Your task to perform on an android device: open app "Microsoft Outlook" Image 0: 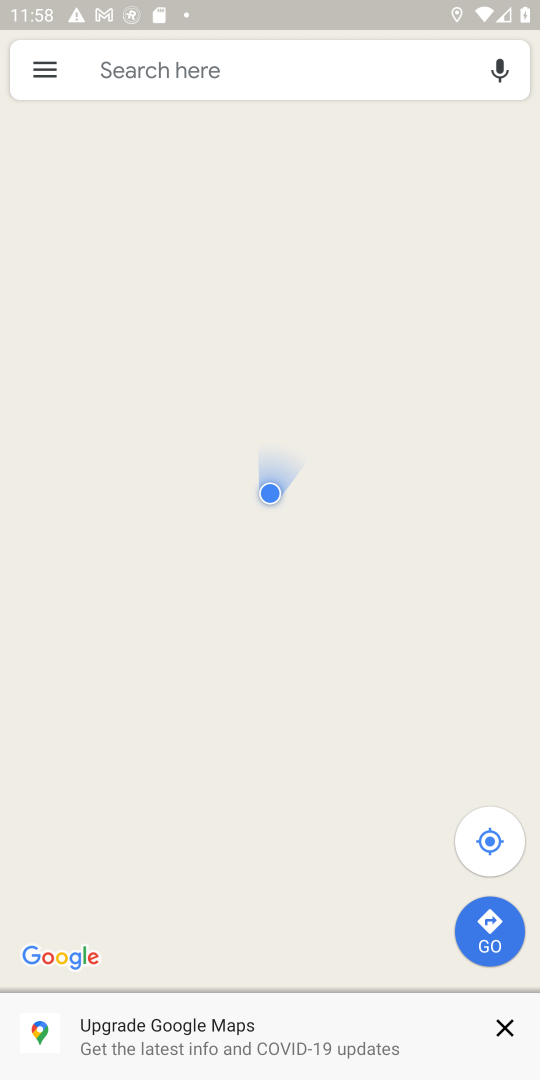
Step 0: press home button
Your task to perform on an android device: open app "Microsoft Outlook" Image 1: 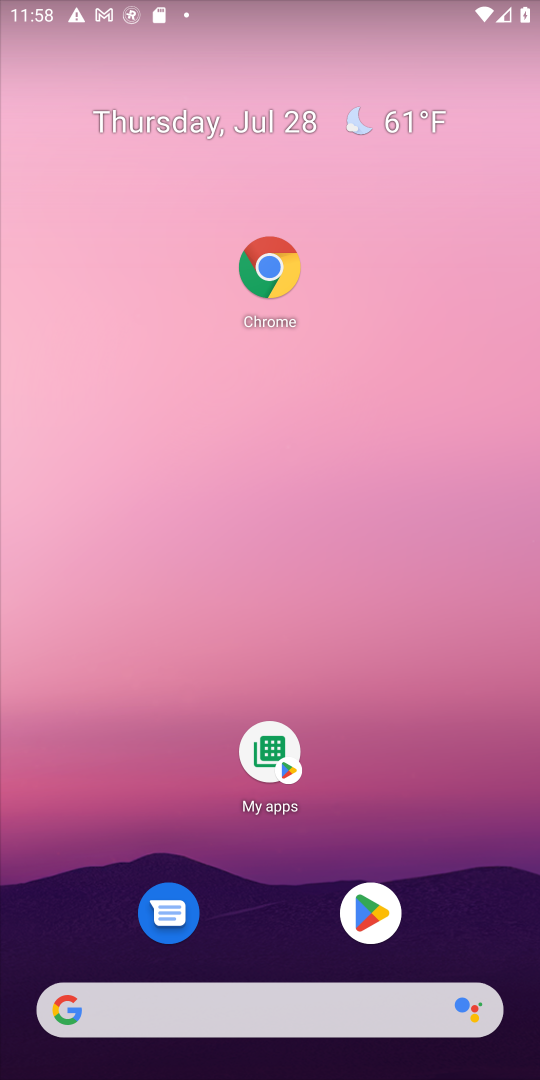
Step 1: click (378, 903)
Your task to perform on an android device: open app "Microsoft Outlook" Image 2: 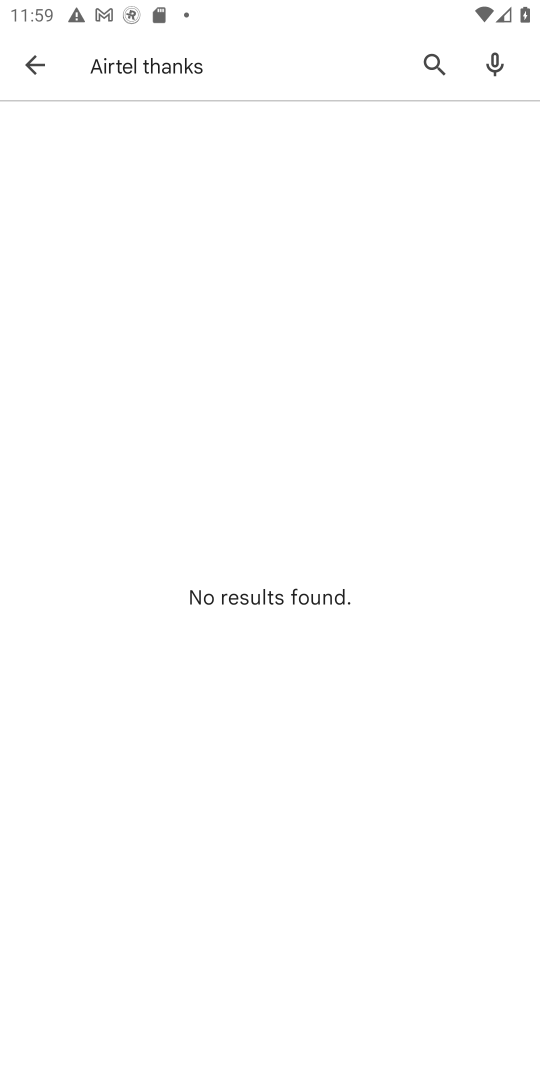
Step 2: click (434, 67)
Your task to perform on an android device: open app "Microsoft Outlook" Image 3: 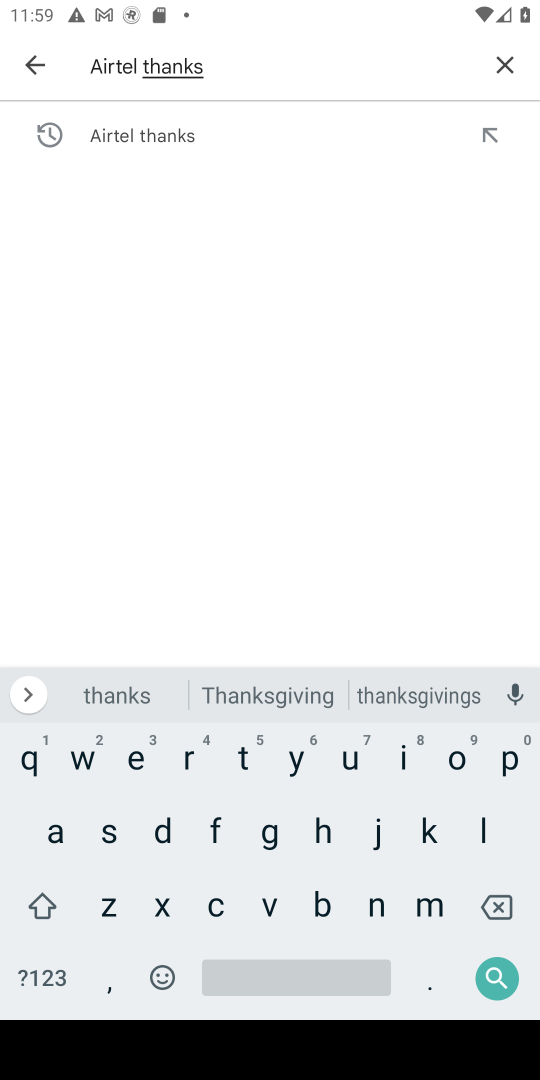
Step 3: click (503, 67)
Your task to perform on an android device: open app "Microsoft Outlook" Image 4: 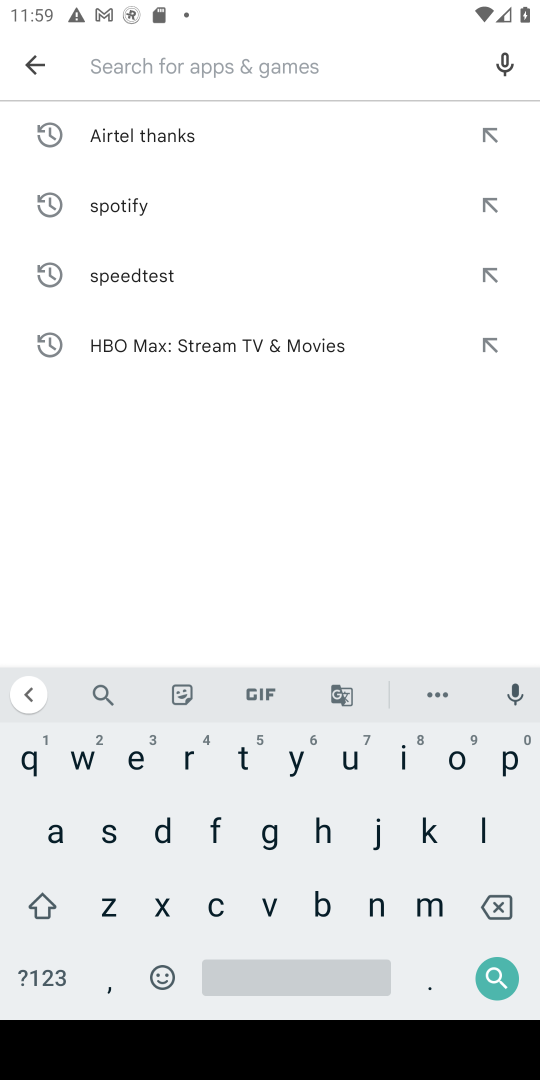
Step 4: click (458, 766)
Your task to perform on an android device: open app "Microsoft Outlook" Image 5: 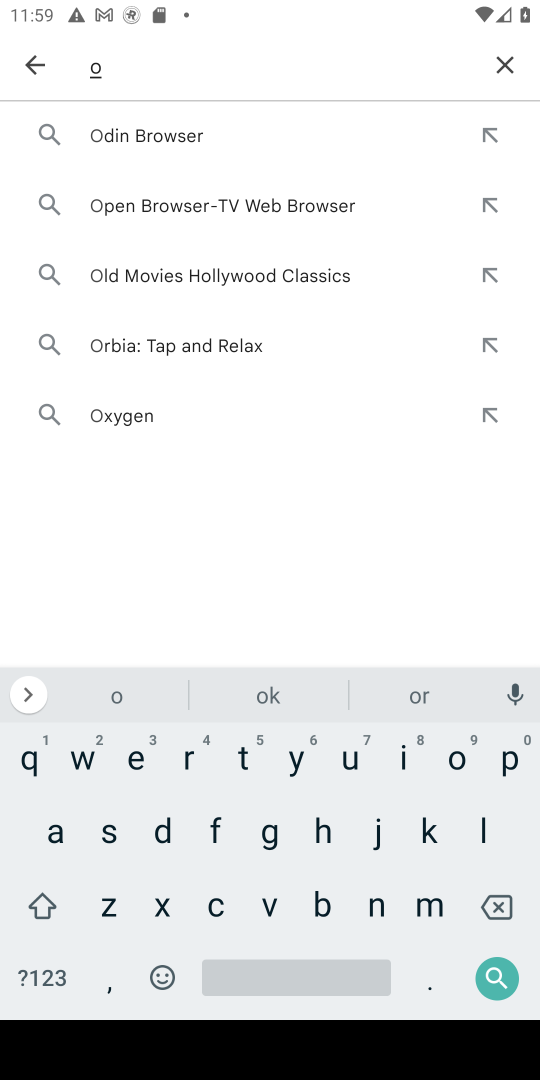
Step 5: click (342, 760)
Your task to perform on an android device: open app "Microsoft Outlook" Image 6: 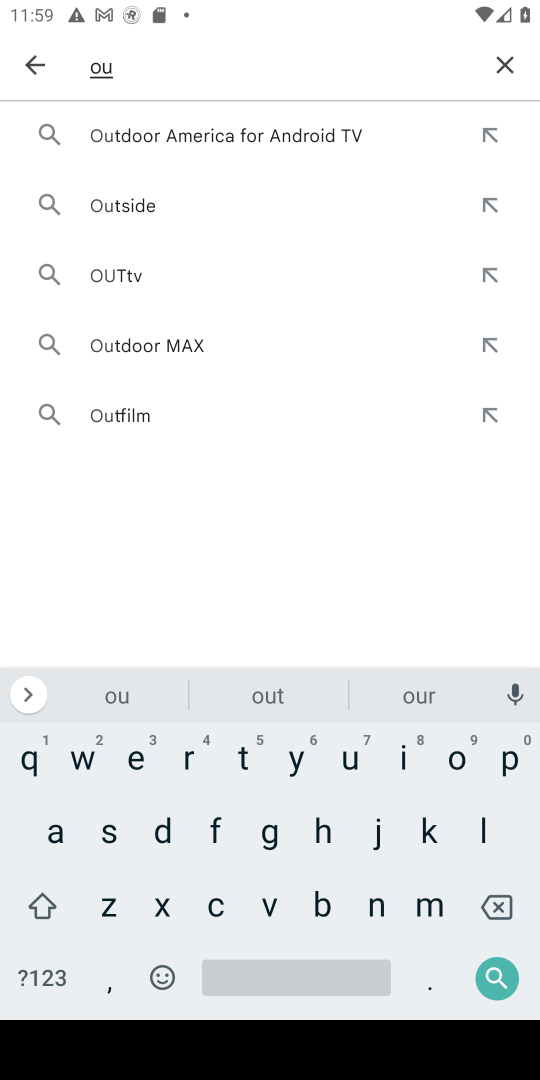
Step 6: click (241, 756)
Your task to perform on an android device: open app "Microsoft Outlook" Image 7: 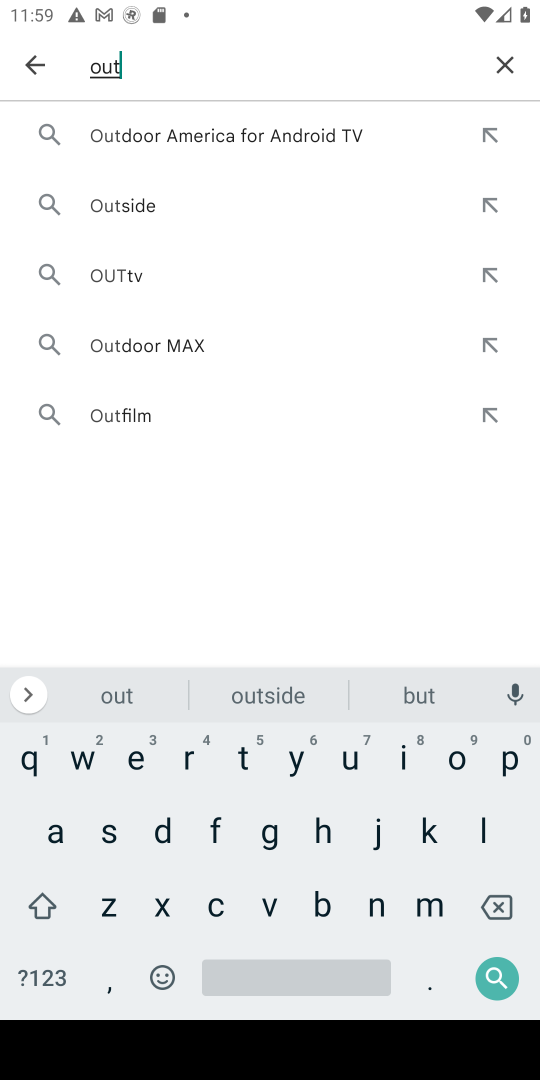
Step 7: click (491, 837)
Your task to perform on an android device: open app "Microsoft Outlook" Image 8: 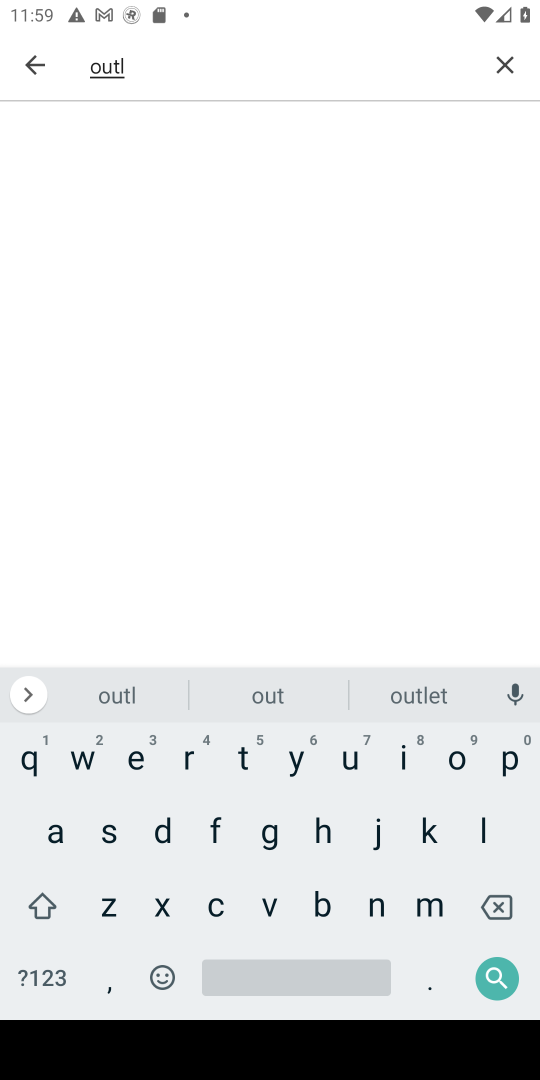
Step 8: click (462, 764)
Your task to perform on an android device: open app "Microsoft Outlook" Image 9: 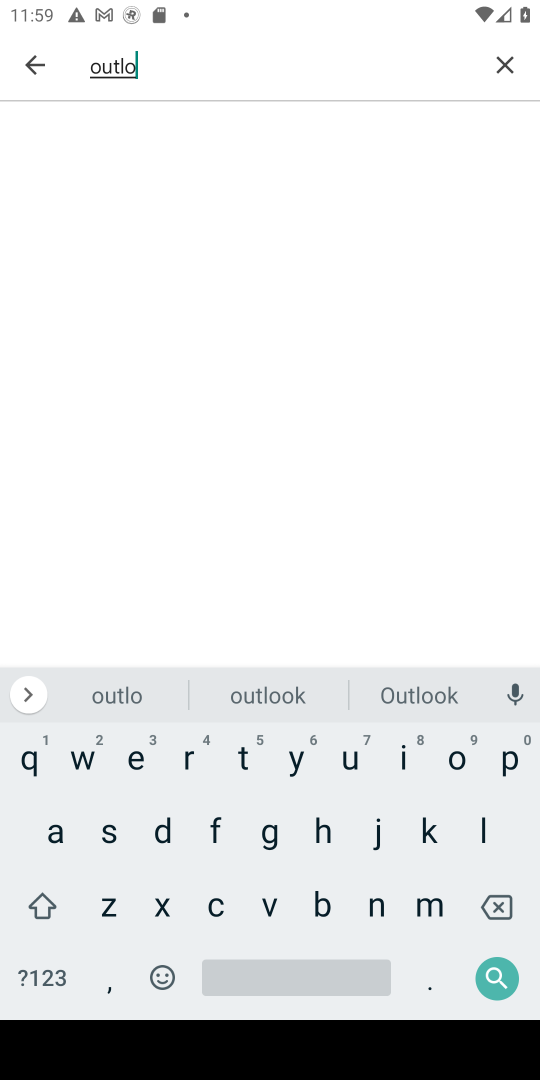
Step 9: click (429, 702)
Your task to perform on an android device: open app "Microsoft Outlook" Image 10: 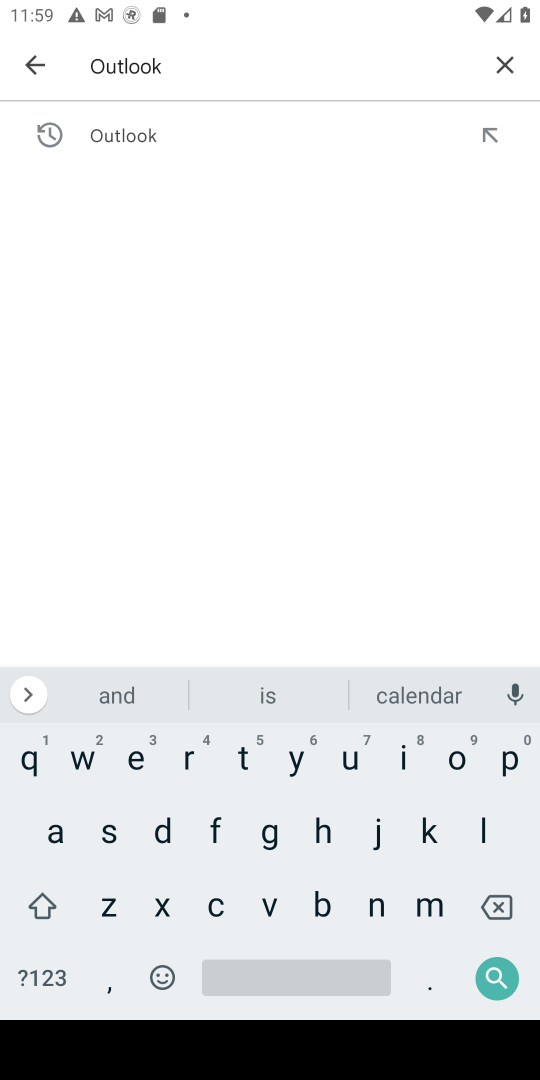
Step 10: click (498, 985)
Your task to perform on an android device: open app "Microsoft Outlook" Image 11: 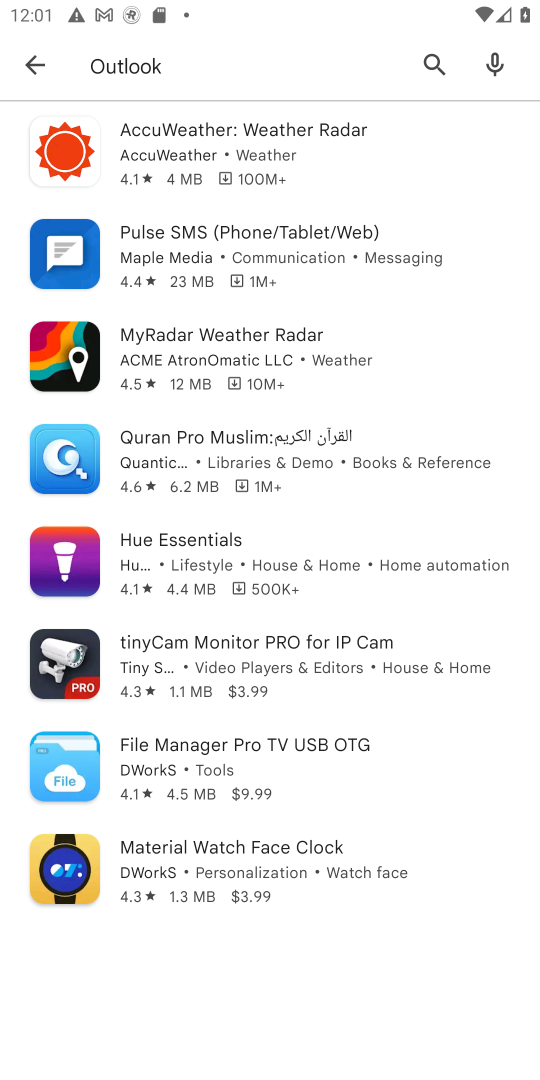
Step 11: task complete